Your task to perform on an android device: Open calendar and show me the third week of next month Image 0: 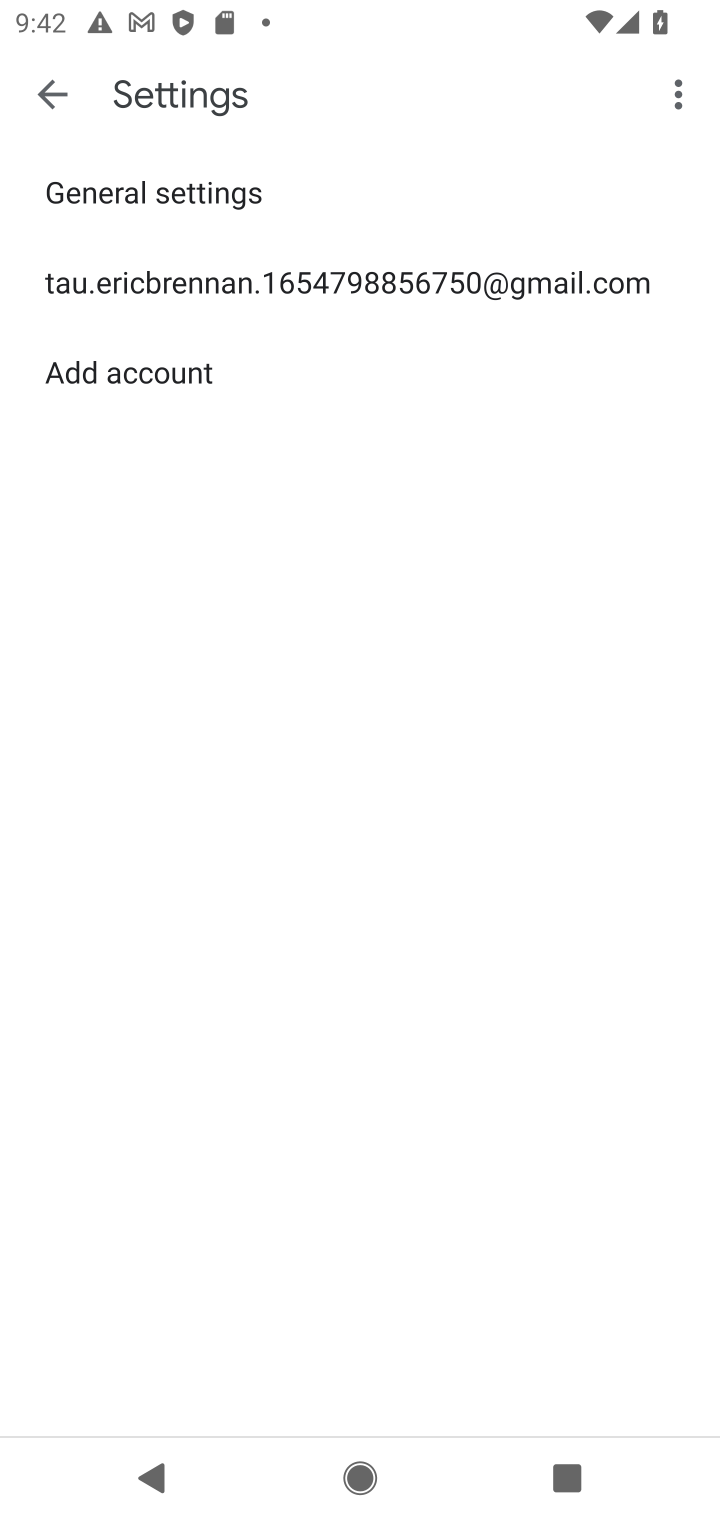
Step 0: press home button
Your task to perform on an android device: Open calendar and show me the third week of next month Image 1: 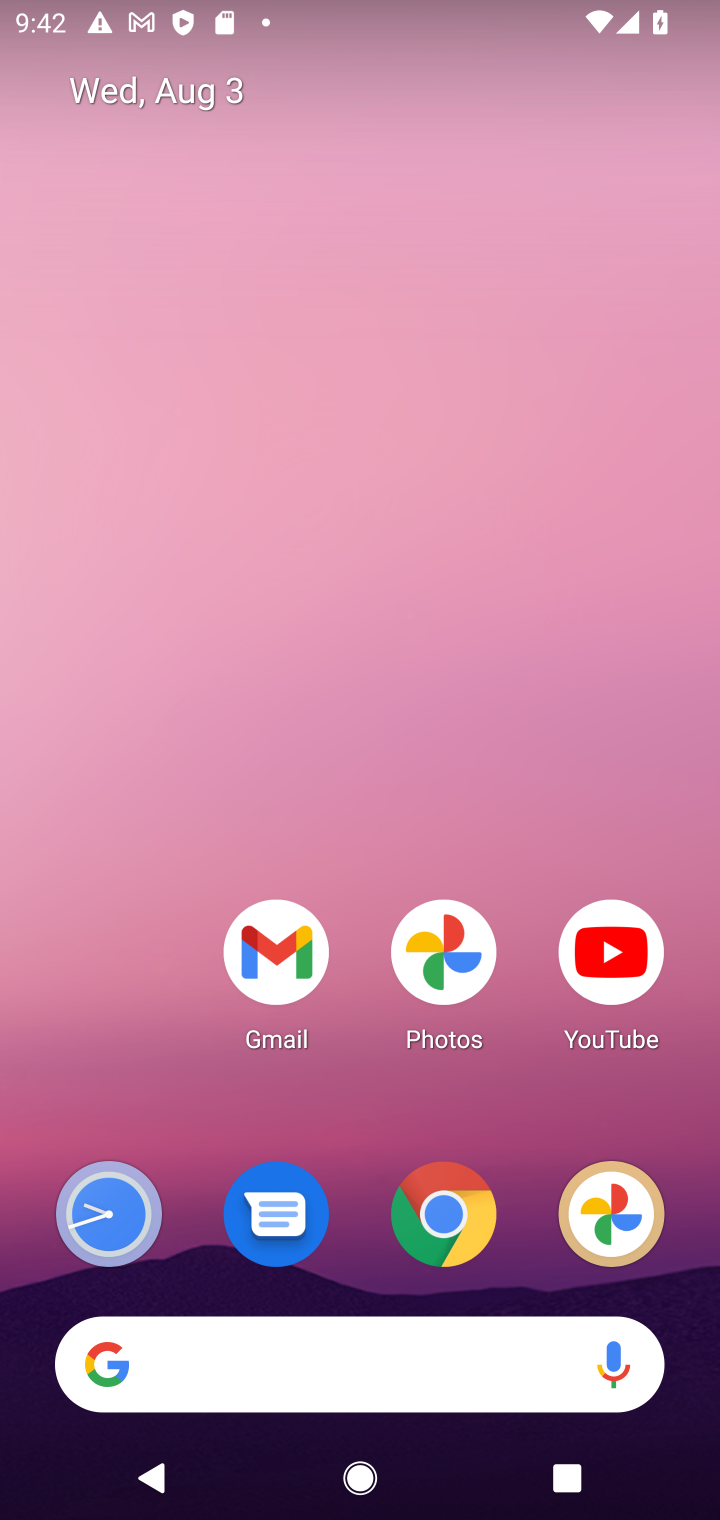
Step 1: drag from (189, 1099) to (218, 48)
Your task to perform on an android device: Open calendar and show me the third week of next month Image 2: 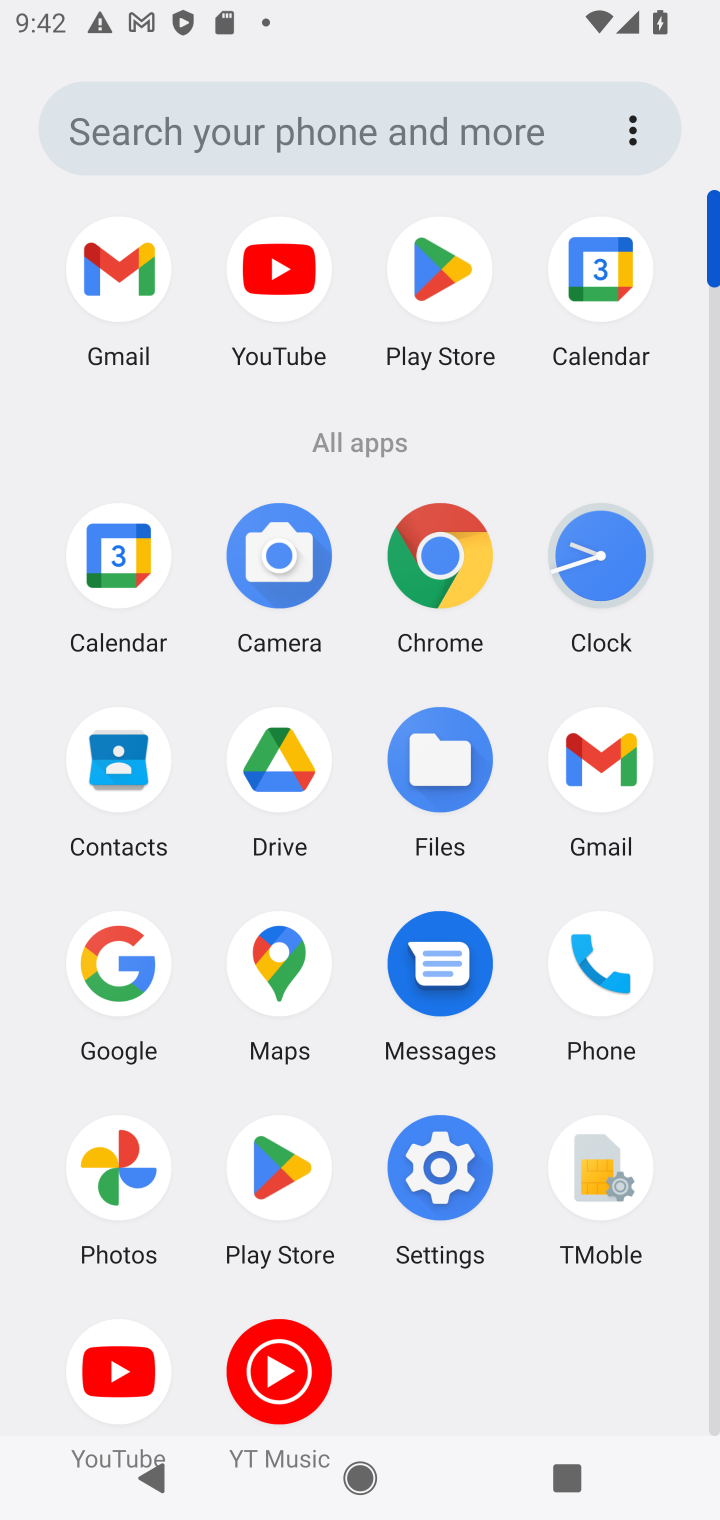
Step 2: click (89, 546)
Your task to perform on an android device: Open calendar and show me the third week of next month Image 3: 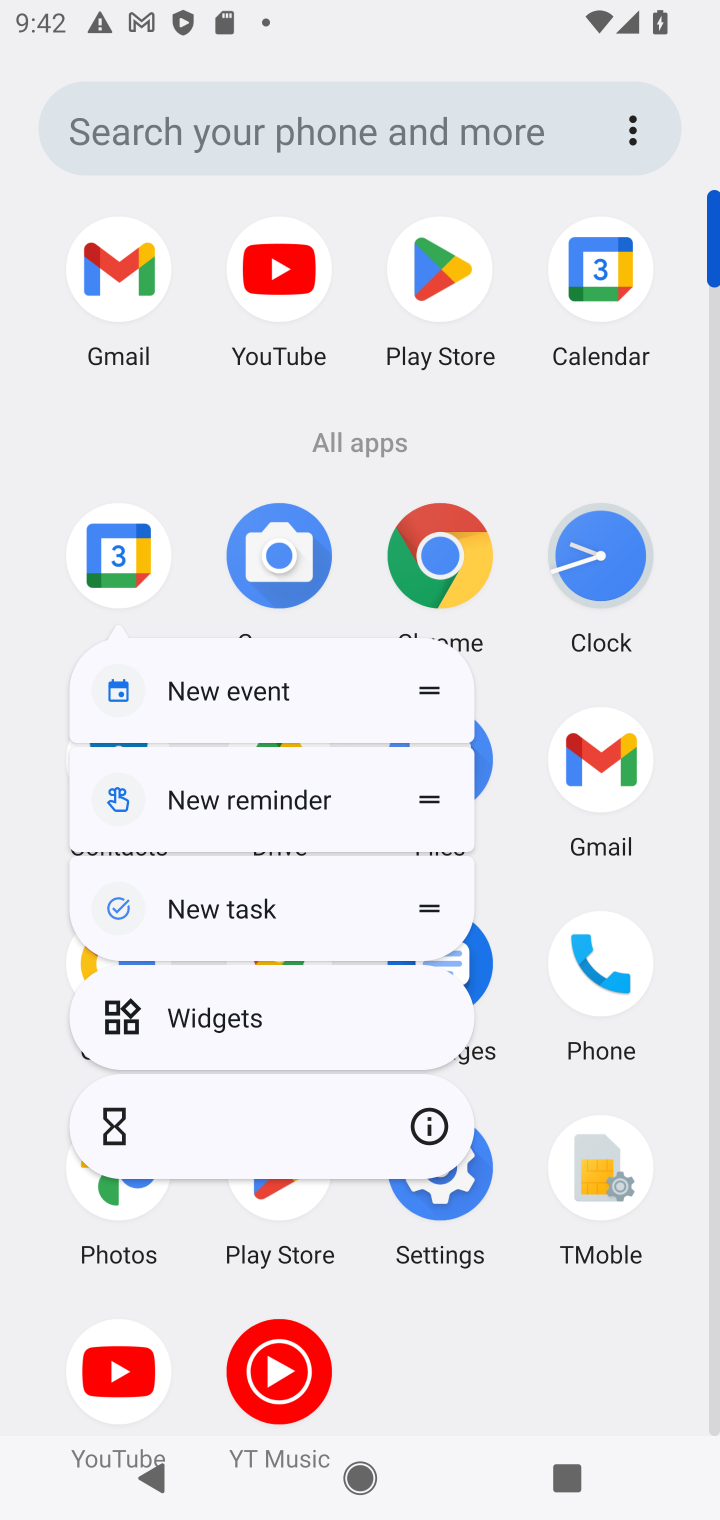
Step 3: click (104, 543)
Your task to perform on an android device: Open calendar and show me the third week of next month Image 4: 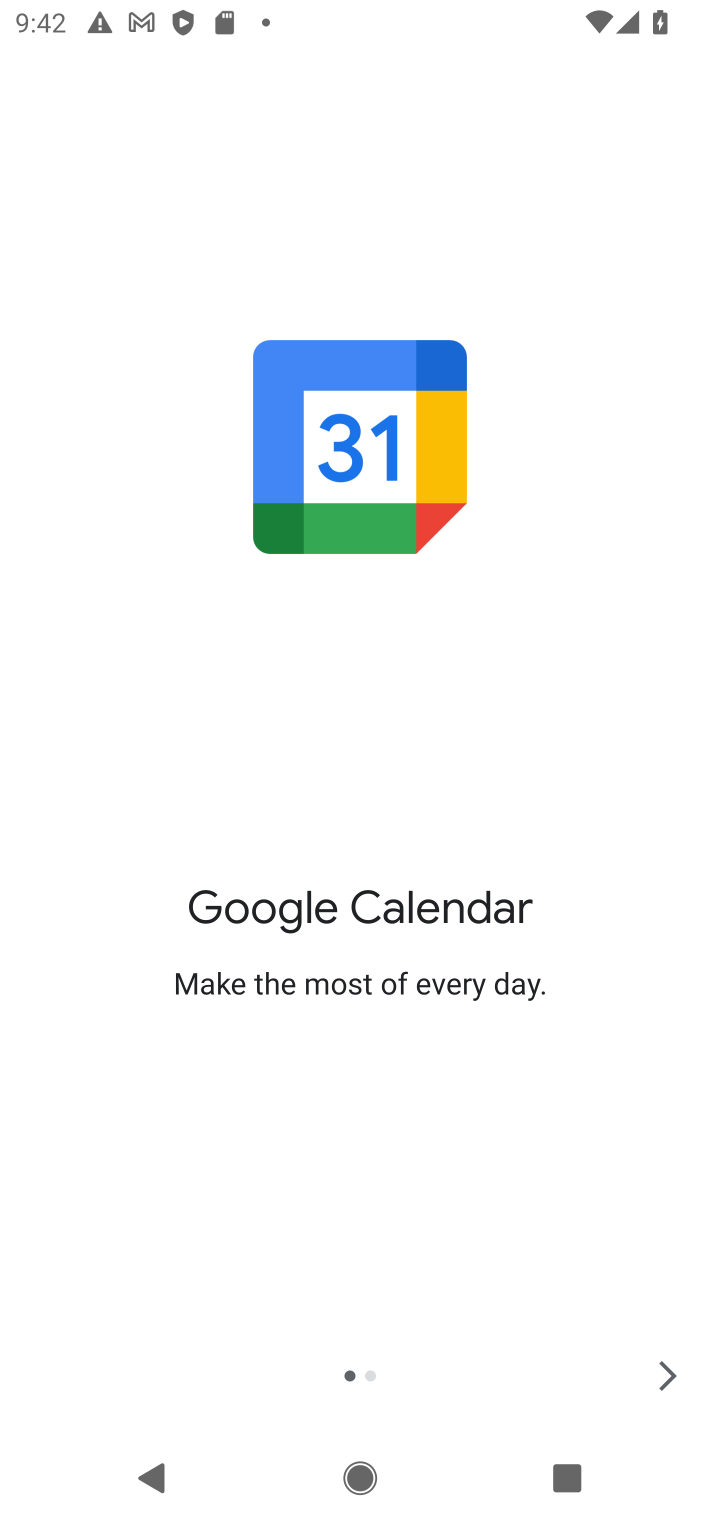
Step 4: click (656, 1365)
Your task to perform on an android device: Open calendar and show me the third week of next month Image 5: 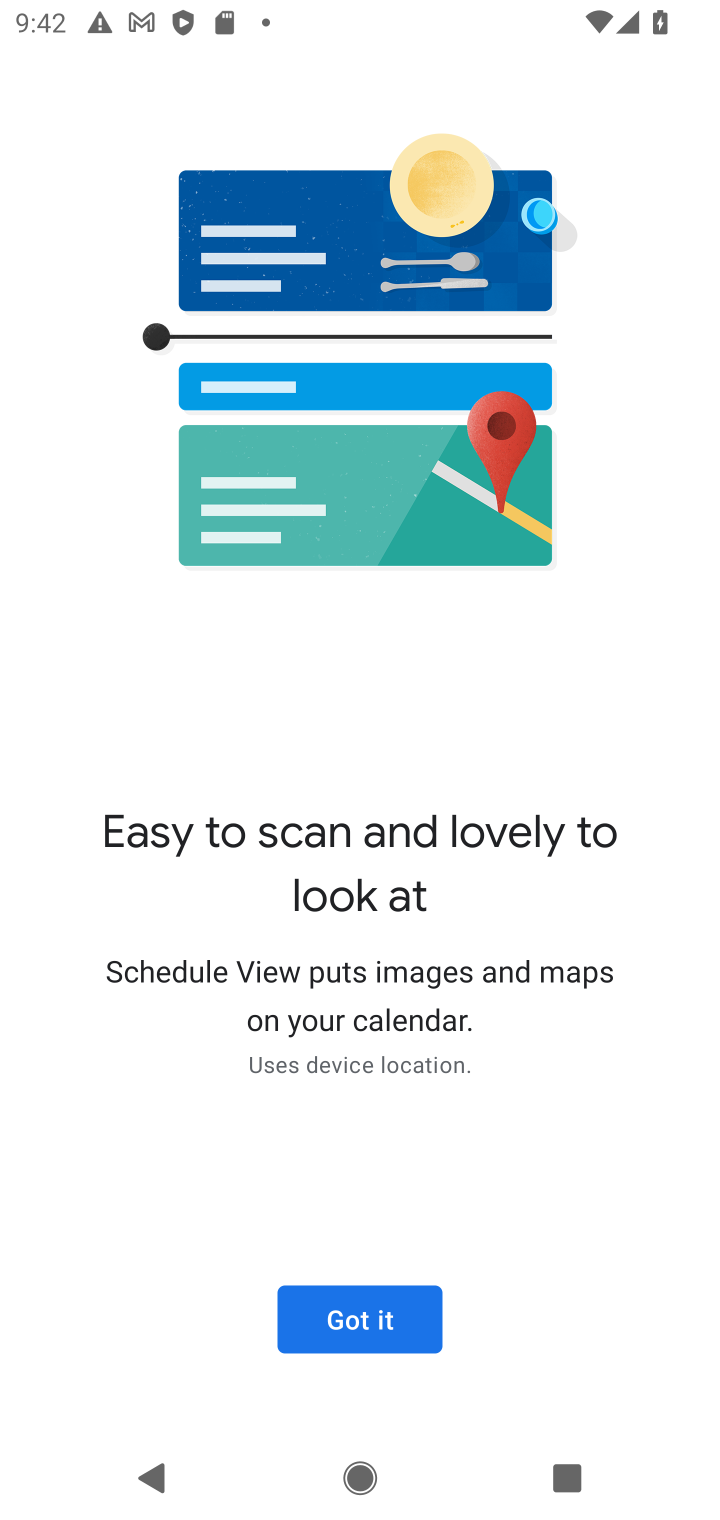
Step 5: click (358, 1337)
Your task to perform on an android device: Open calendar and show me the third week of next month Image 6: 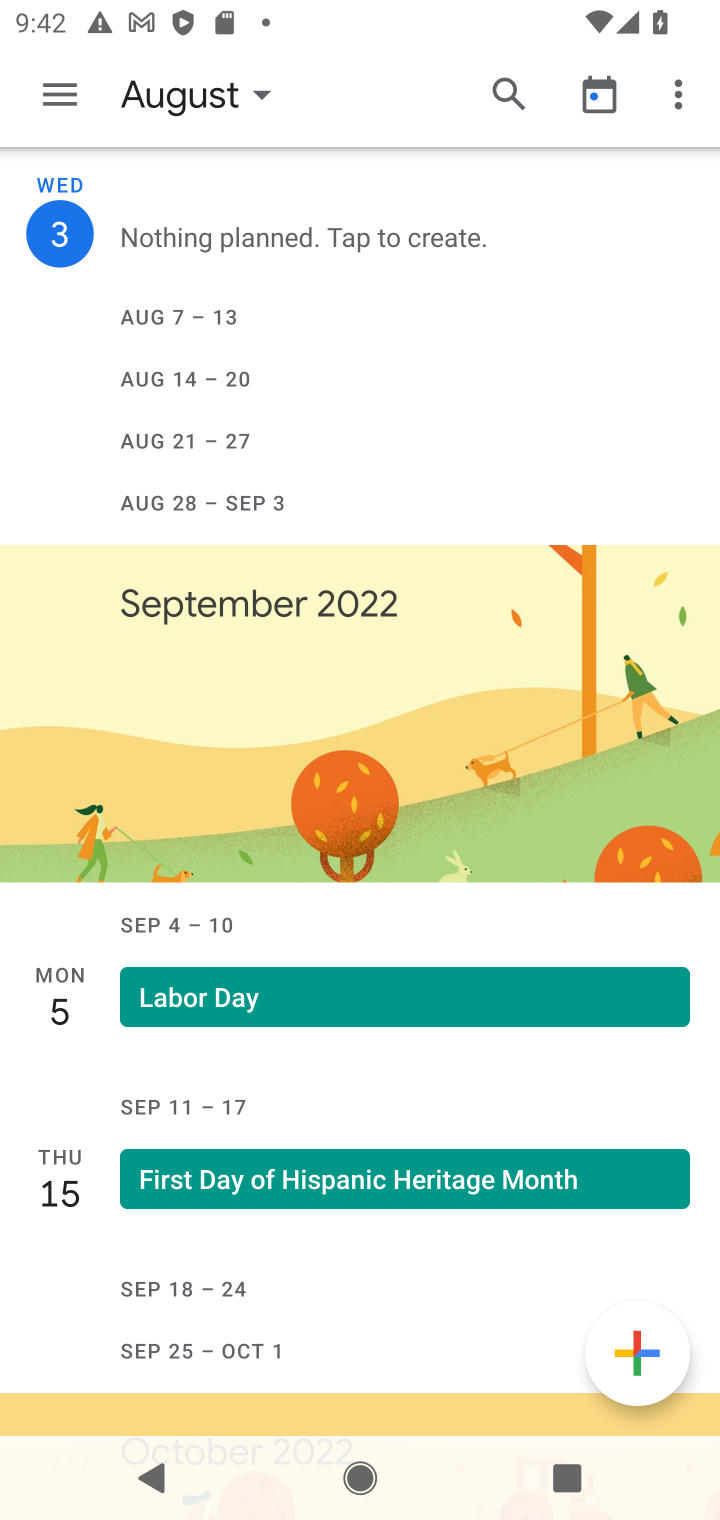
Step 6: click (234, 87)
Your task to perform on an android device: Open calendar and show me the third week of next month Image 7: 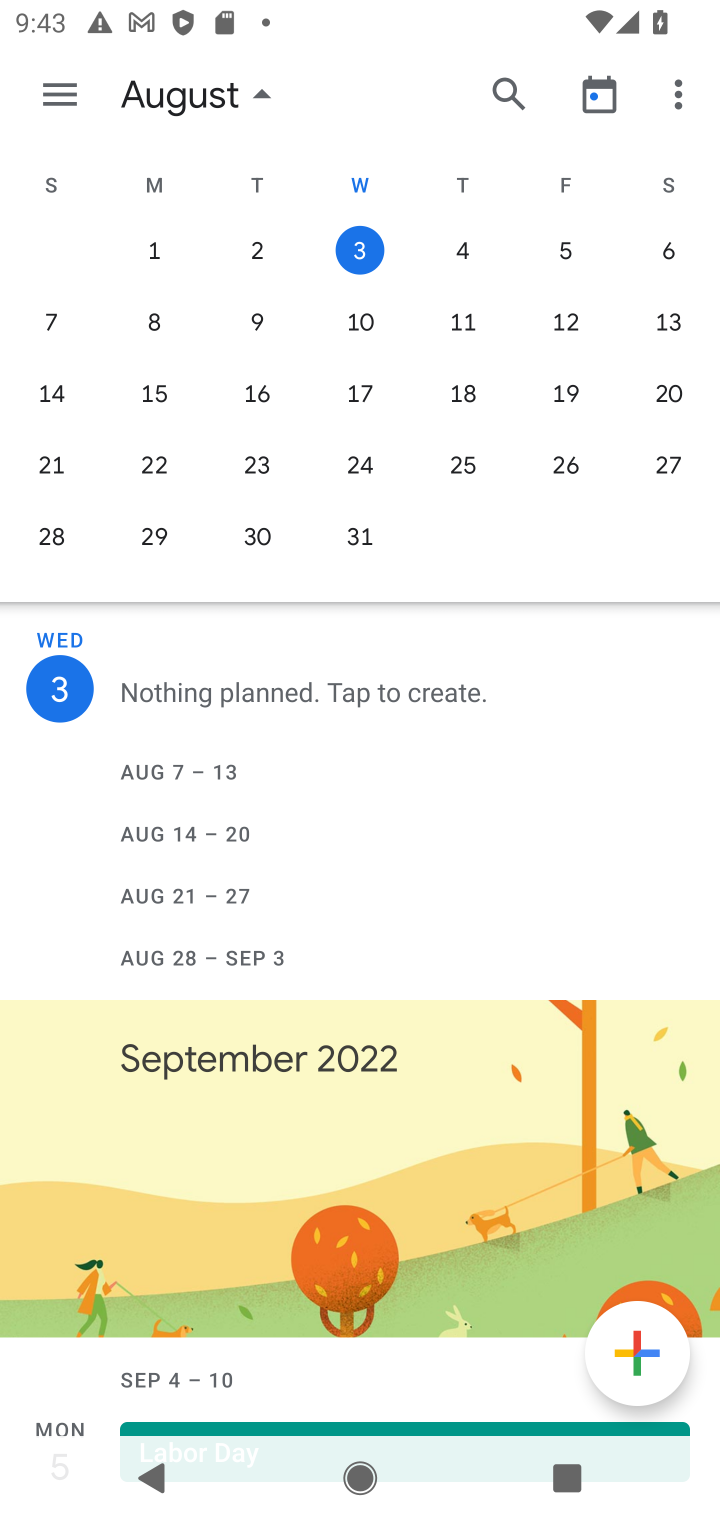
Step 7: drag from (626, 362) to (0, 176)
Your task to perform on an android device: Open calendar and show me the third week of next month Image 8: 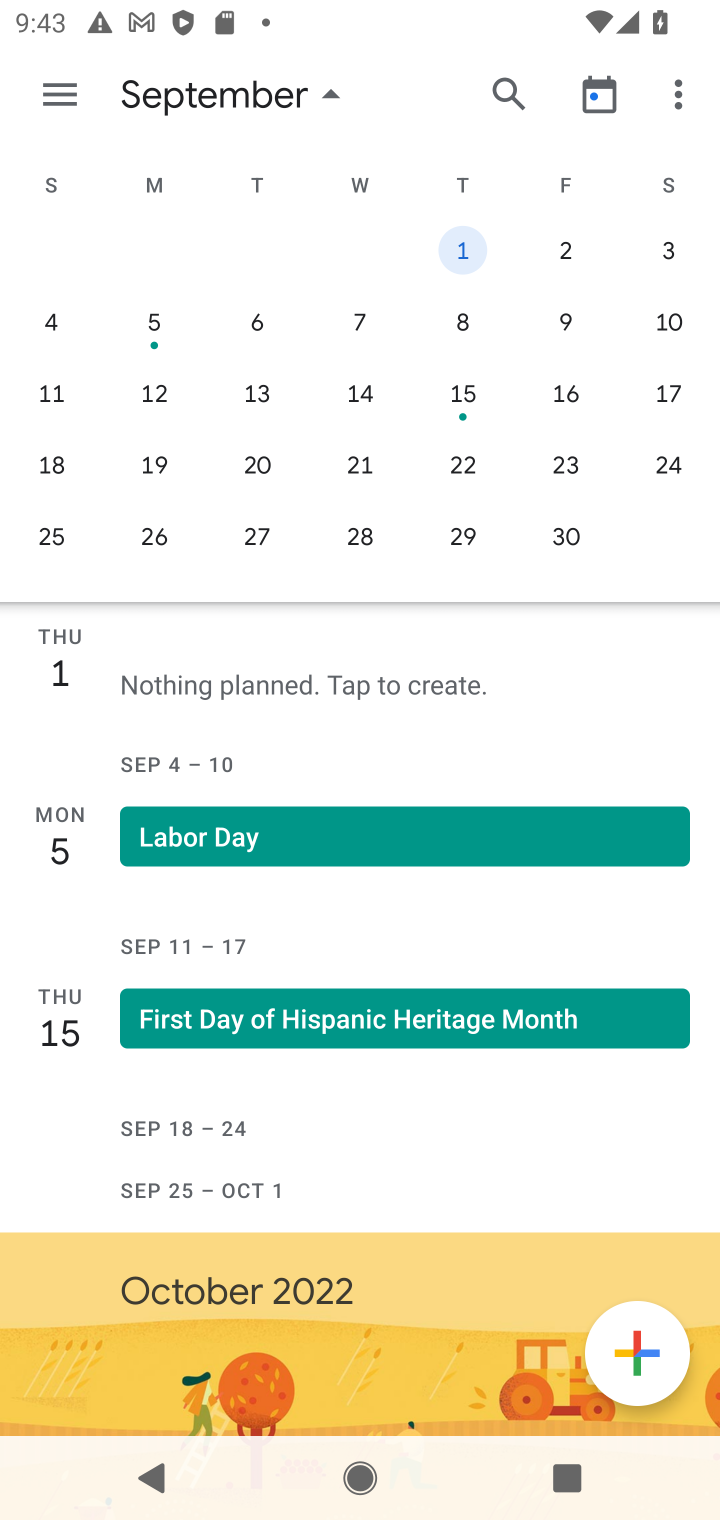
Step 8: click (50, 458)
Your task to perform on an android device: Open calendar and show me the third week of next month Image 9: 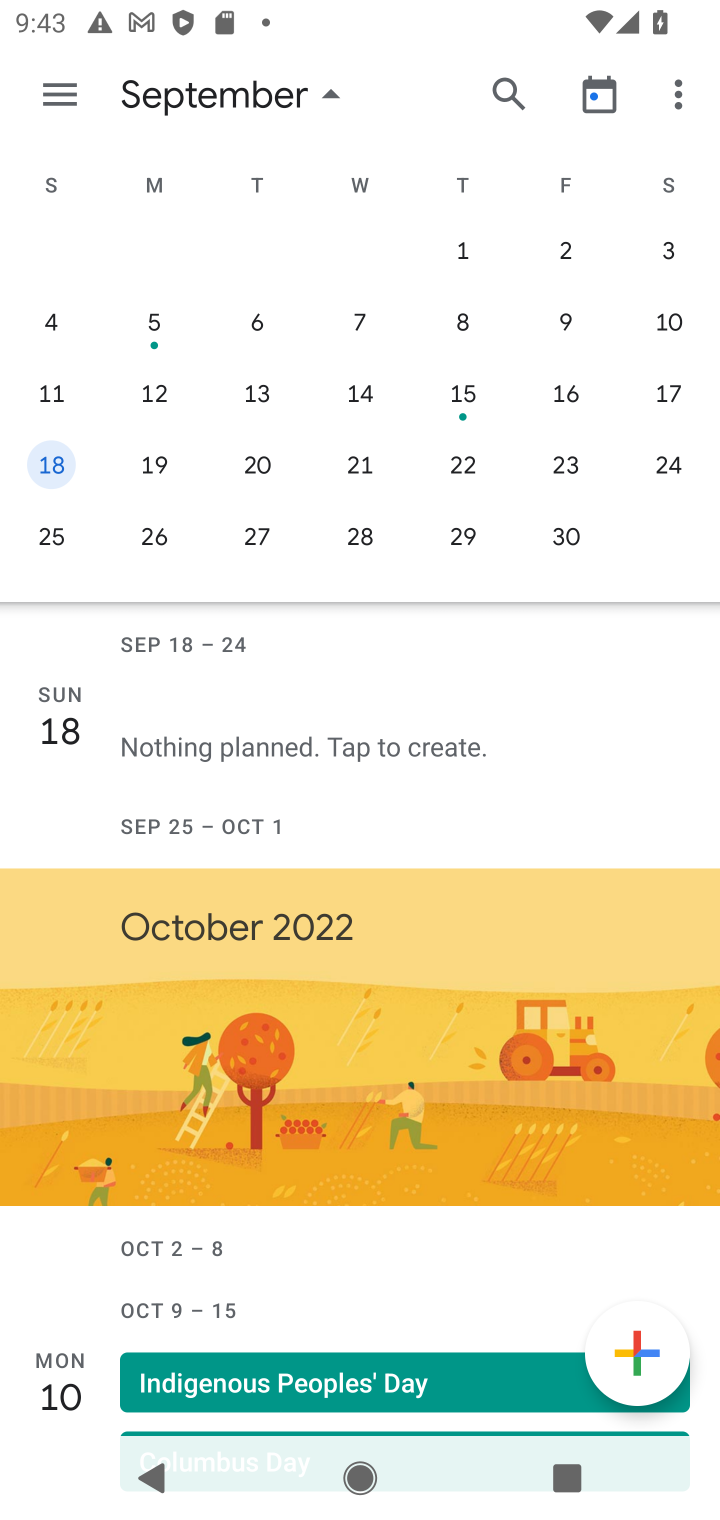
Step 9: task complete